Your task to perform on an android device: open chrome privacy settings Image 0: 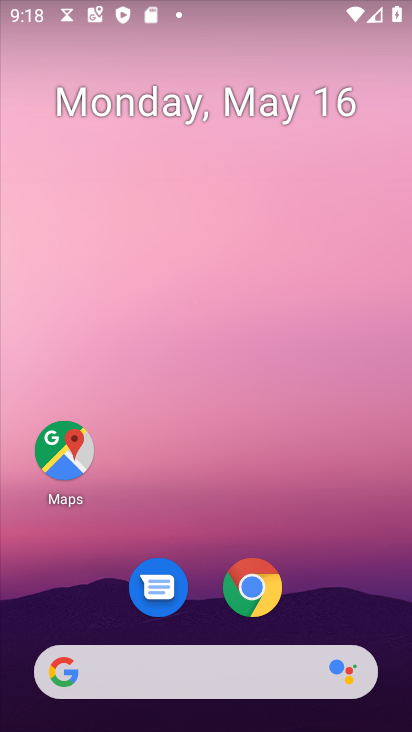
Step 0: drag from (334, 610) to (269, 129)
Your task to perform on an android device: open chrome privacy settings Image 1: 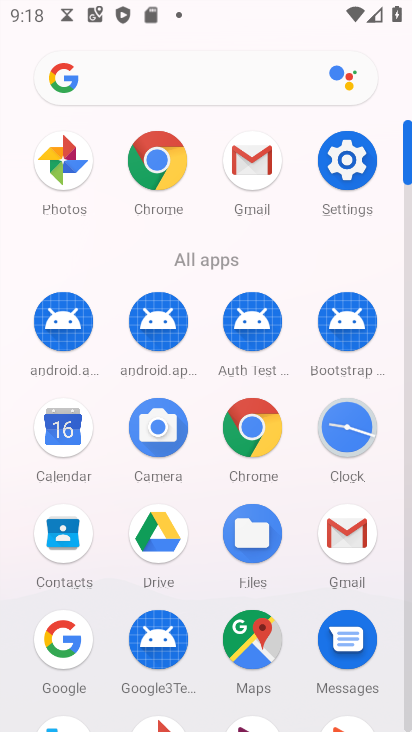
Step 1: click (151, 177)
Your task to perform on an android device: open chrome privacy settings Image 2: 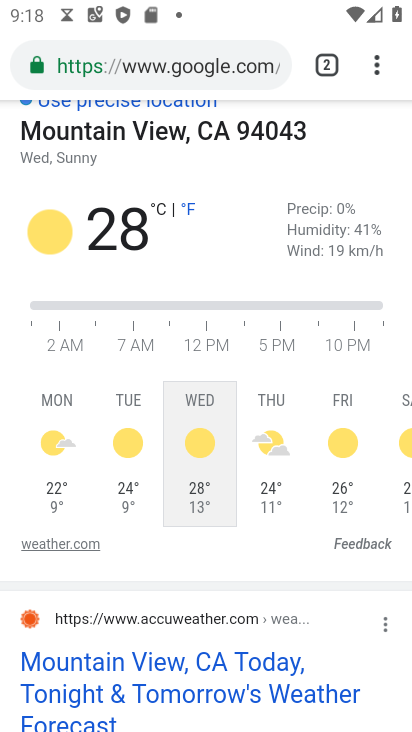
Step 2: click (372, 68)
Your task to perform on an android device: open chrome privacy settings Image 3: 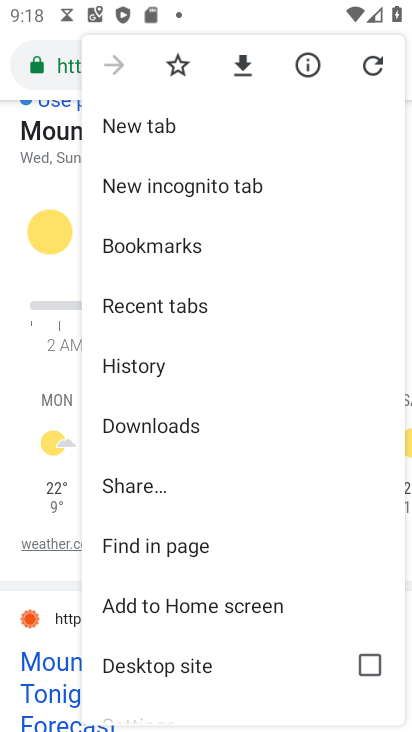
Step 3: drag from (237, 654) to (205, 204)
Your task to perform on an android device: open chrome privacy settings Image 4: 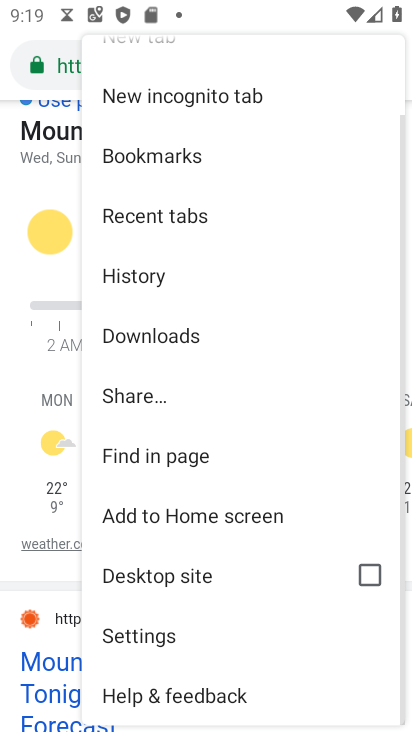
Step 4: click (206, 651)
Your task to perform on an android device: open chrome privacy settings Image 5: 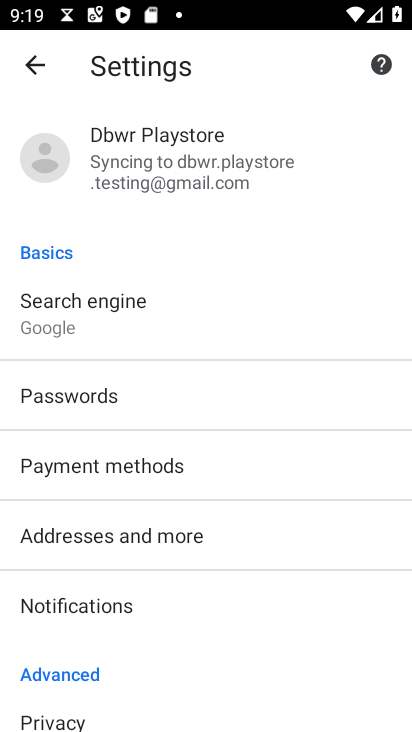
Step 5: drag from (225, 684) to (222, 413)
Your task to perform on an android device: open chrome privacy settings Image 6: 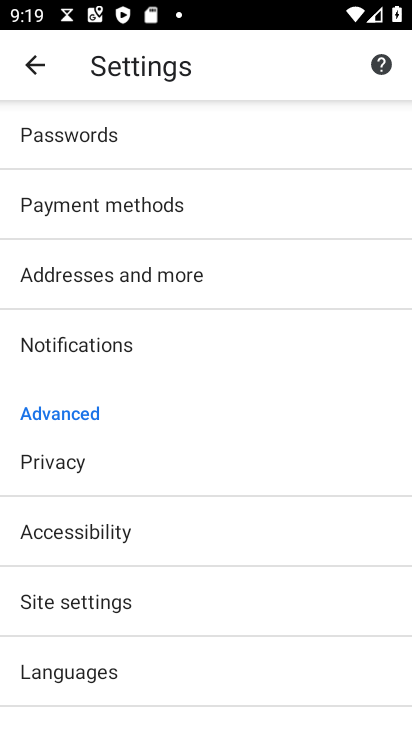
Step 6: click (225, 465)
Your task to perform on an android device: open chrome privacy settings Image 7: 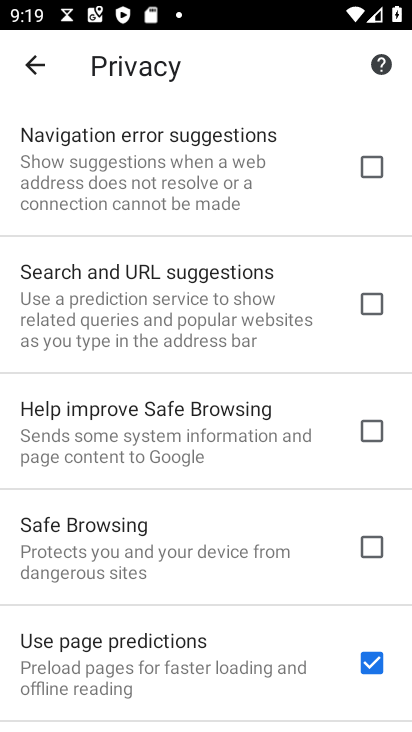
Step 7: task complete